Your task to perform on an android device: Open display settings Image 0: 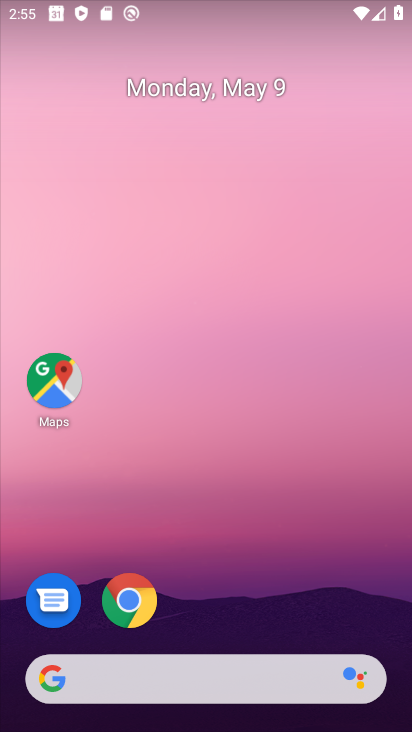
Step 0: drag from (233, 728) to (232, 65)
Your task to perform on an android device: Open display settings Image 1: 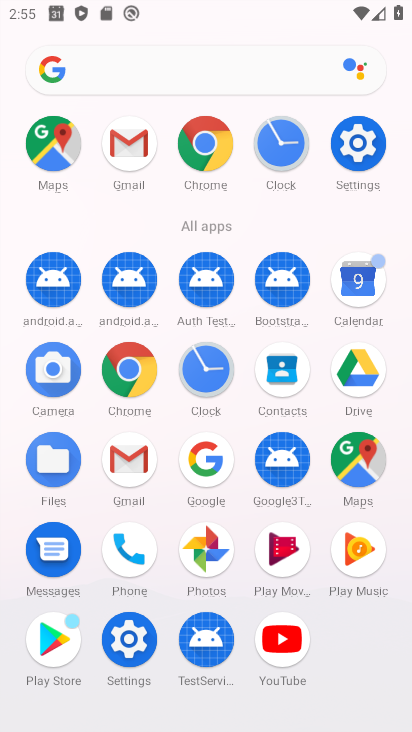
Step 1: click (355, 143)
Your task to perform on an android device: Open display settings Image 2: 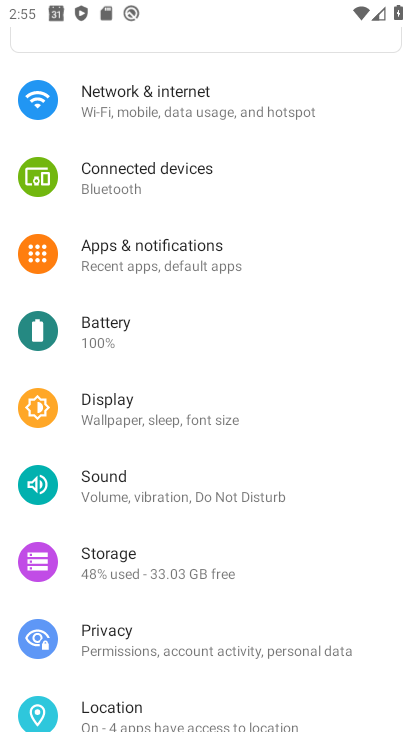
Step 2: click (113, 412)
Your task to perform on an android device: Open display settings Image 3: 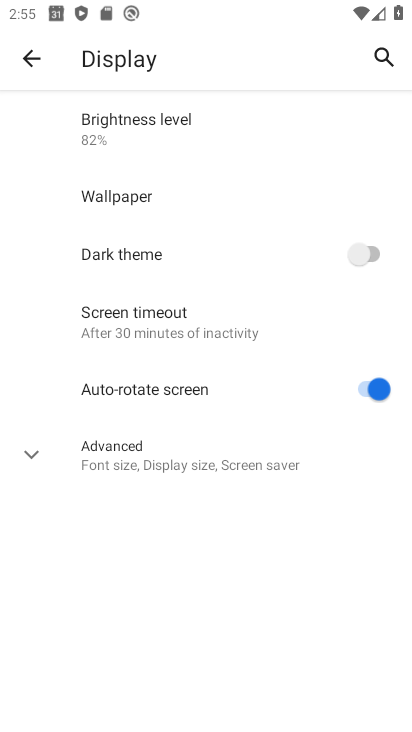
Step 3: task complete